Your task to perform on an android device: turn off smart reply in the gmail app Image 0: 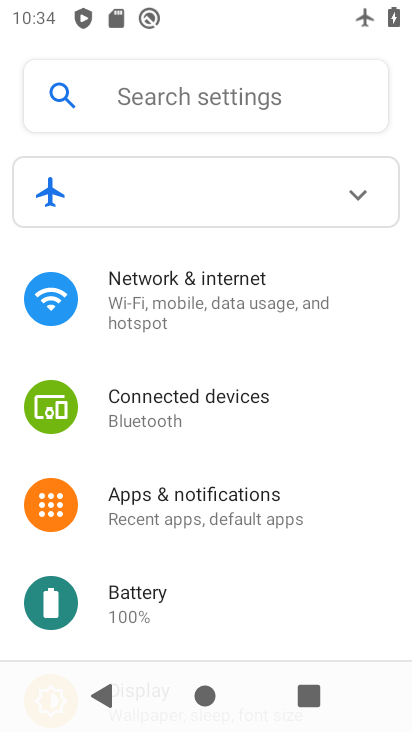
Step 0: press back button
Your task to perform on an android device: turn off smart reply in the gmail app Image 1: 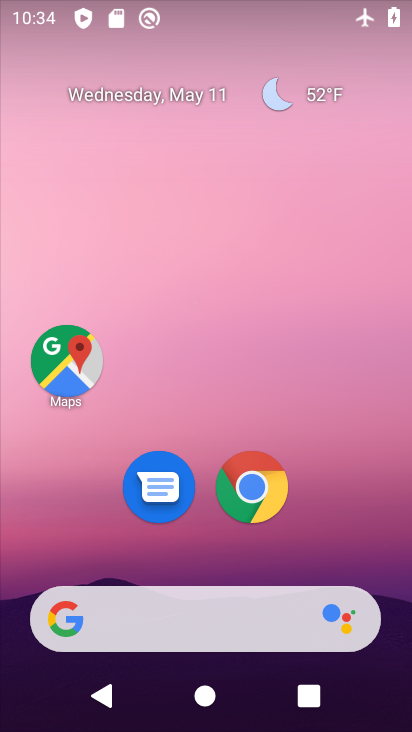
Step 1: drag from (334, 529) to (279, 28)
Your task to perform on an android device: turn off smart reply in the gmail app Image 2: 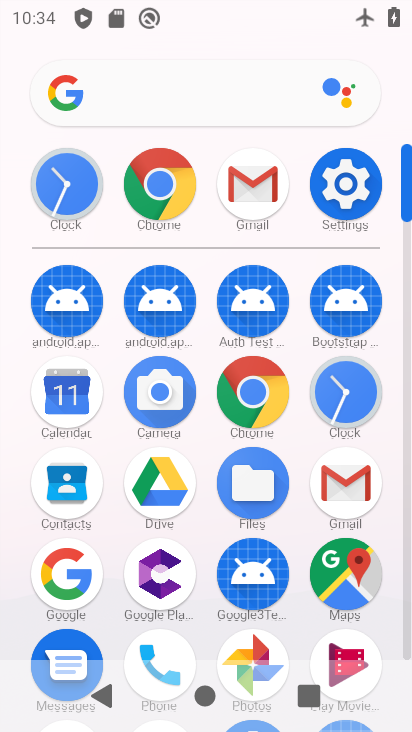
Step 2: click (343, 480)
Your task to perform on an android device: turn off smart reply in the gmail app Image 3: 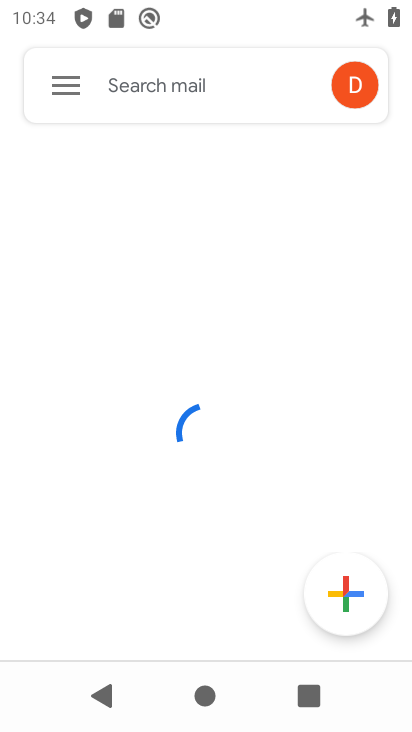
Step 3: click (69, 81)
Your task to perform on an android device: turn off smart reply in the gmail app Image 4: 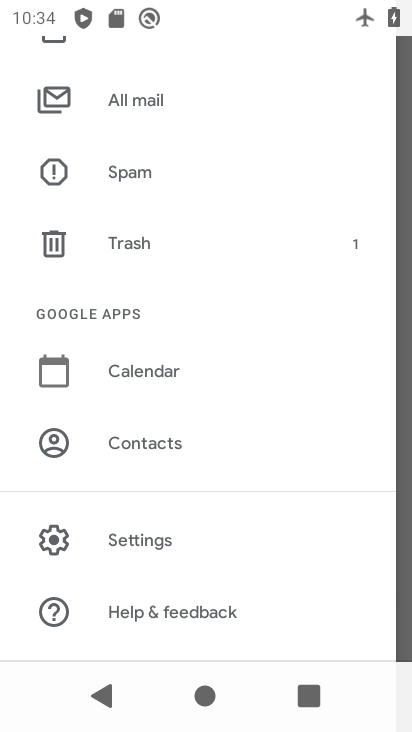
Step 4: click (166, 541)
Your task to perform on an android device: turn off smart reply in the gmail app Image 5: 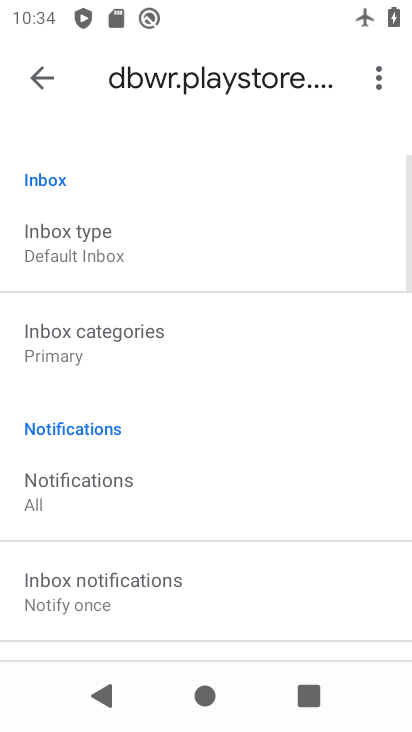
Step 5: drag from (226, 555) to (240, 172)
Your task to perform on an android device: turn off smart reply in the gmail app Image 6: 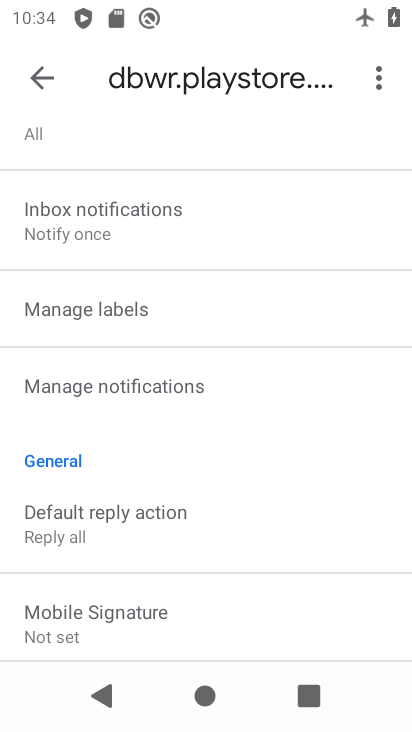
Step 6: drag from (231, 548) to (225, 168)
Your task to perform on an android device: turn off smart reply in the gmail app Image 7: 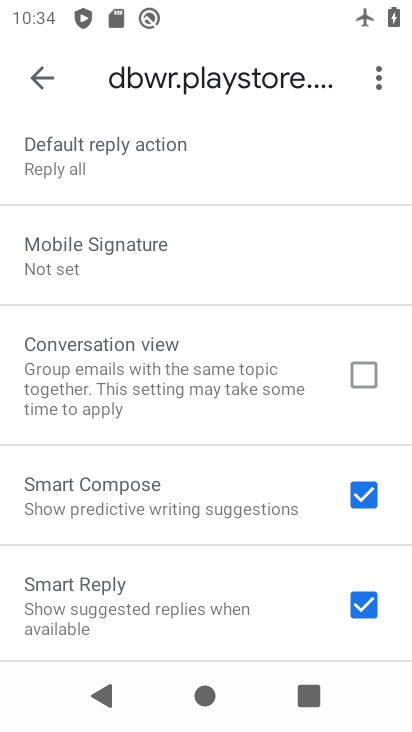
Step 7: drag from (196, 554) to (239, 261)
Your task to perform on an android device: turn off smart reply in the gmail app Image 8: 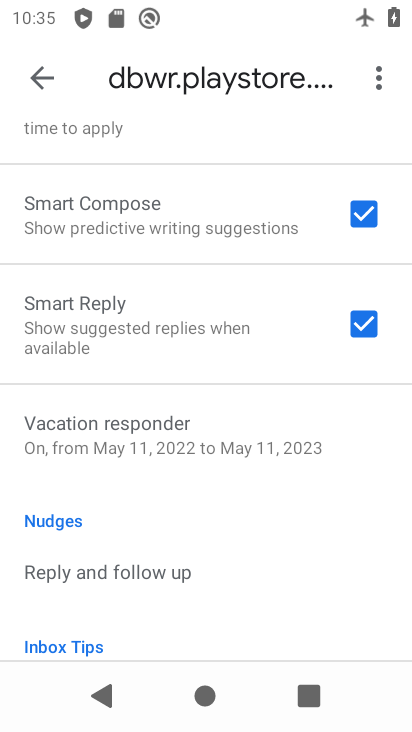
Step 8: click (359, 325)
Your task to perform on an android device: turn off smart reply in the gmail app Image 9: 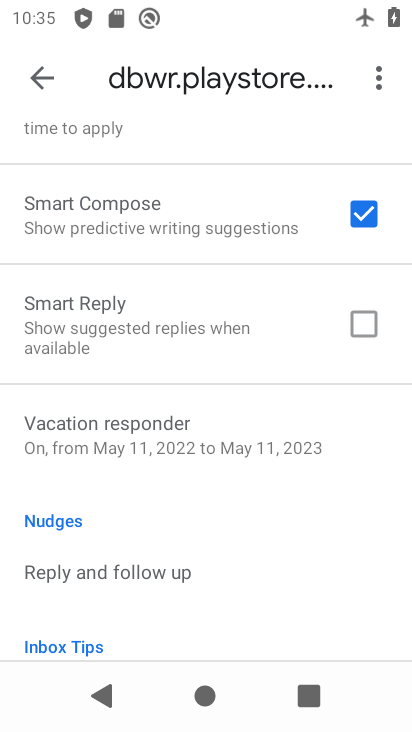
Step 9: task complete